Your task to perform on an android device: open device folders in google photos Image 0: 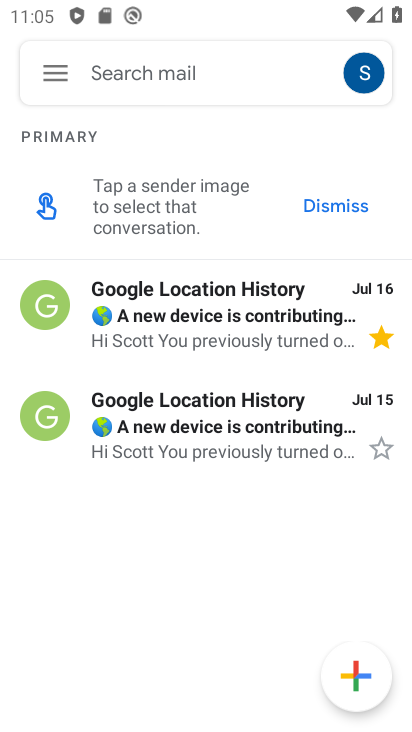
Step 0: press home button
Your task to perform on an android device: open device folders in google photos Image 1: 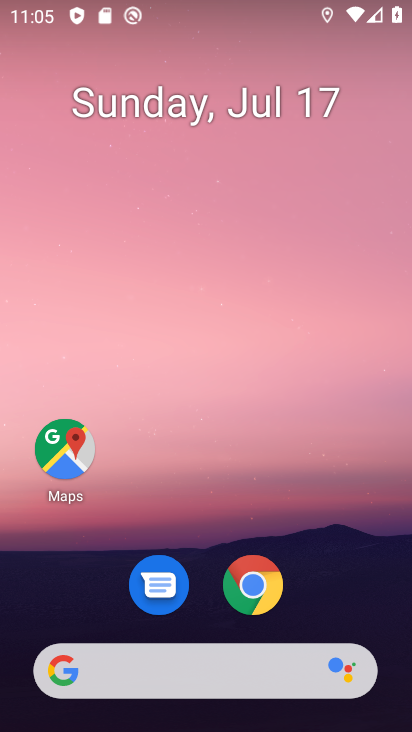
Step 1: drag from (295, 542) to (296, 22)
Your task to perform on an android device: open device folders in google photos Image 2: 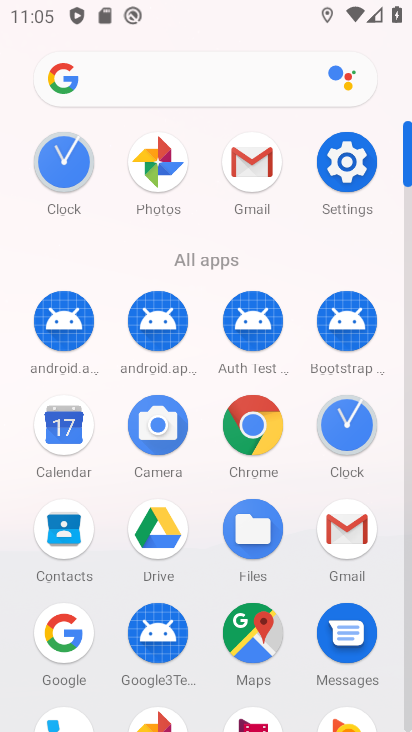
Step 2: click (158, 166)
Your task to perform on an android device: open device folders in google photos Image 3: 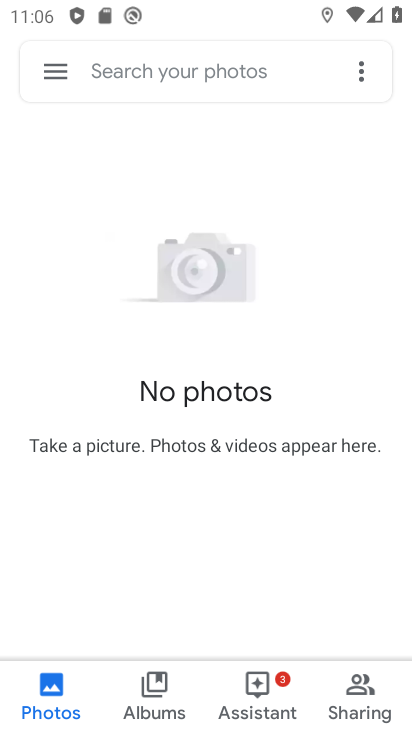
Step 3: click (55, 64)
Your task to perform on an android device: open device folders in google photos Image 4: 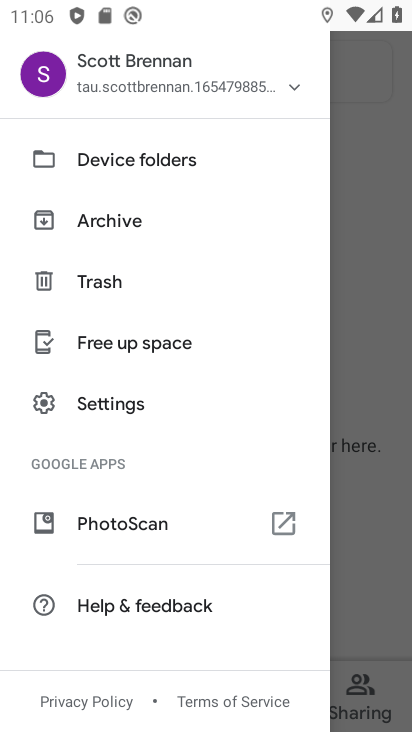
Step 4: click (81, 165)
Your task to perform on an android device: open device folders in google photos Image 5: 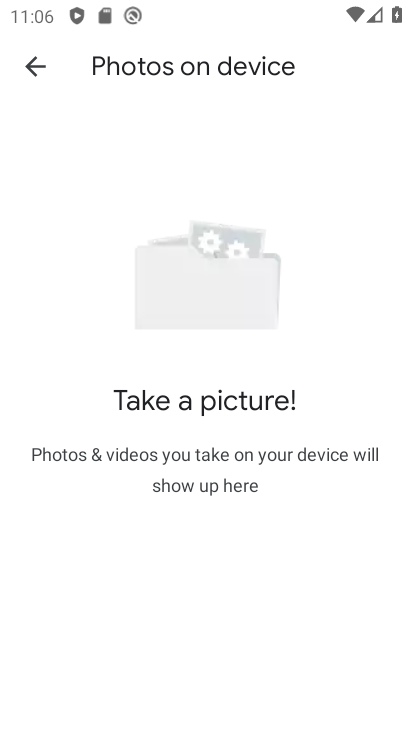
Step 5: task complete